Your task to perform on an android device: change notification settings in the gmail app Image 0: 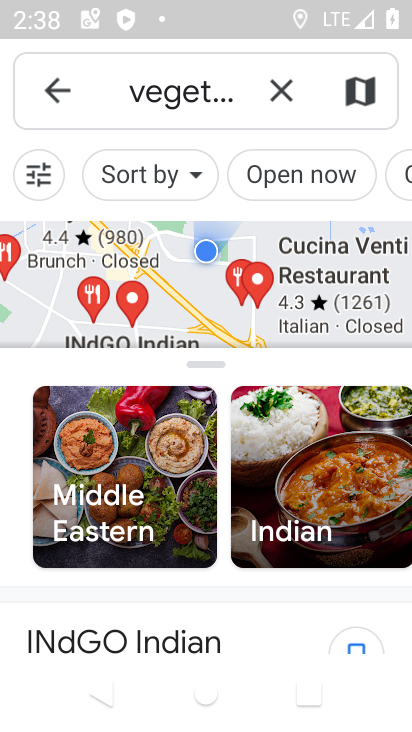
Step 0: press home button
Your task to perform on an android device: change notification settings in the gmail app Image 1: 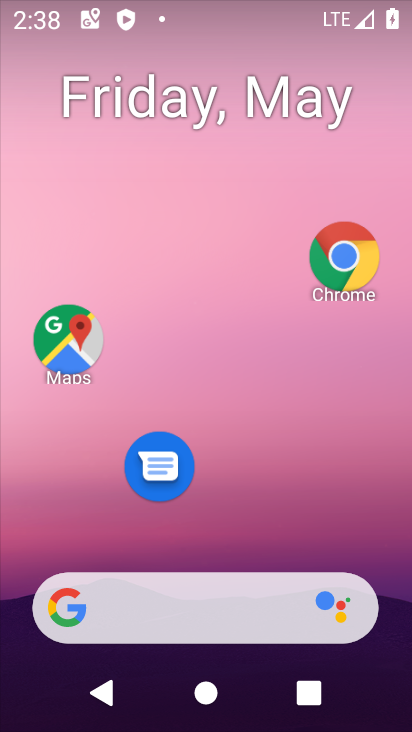
Step 1: drag from (269, 493) to (299, 2)
Your task to perform on an android device: change notification settings in the gmail app Image 2: 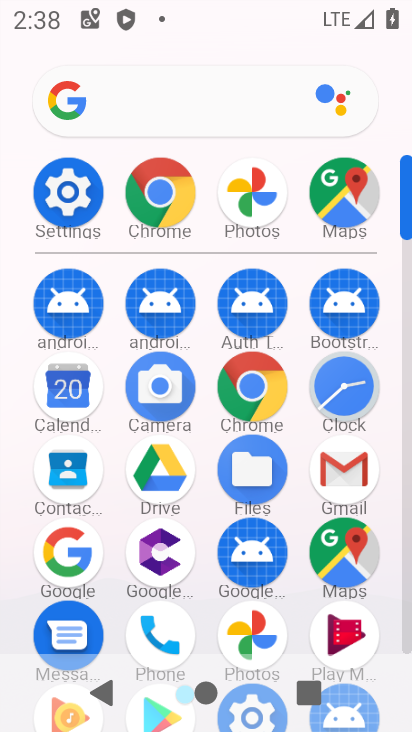
Step 2: click (360, 469)
Your task to perform on an android device: change notification settings in the gmail app Image 3: 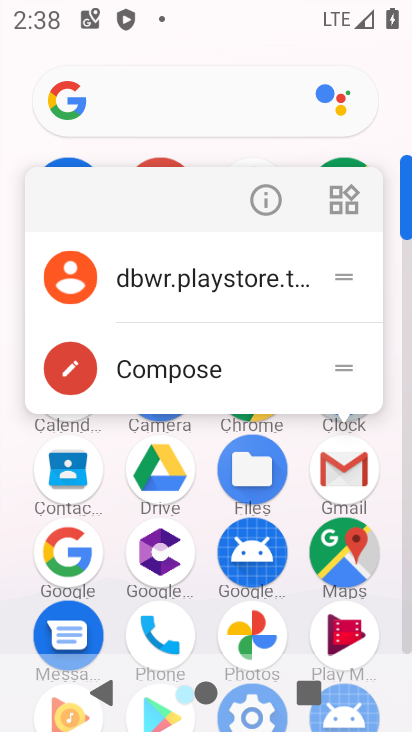
Step 3: click (265, 201)
Your task to perform on an android device: change notification settings in the gmail app Image 4: 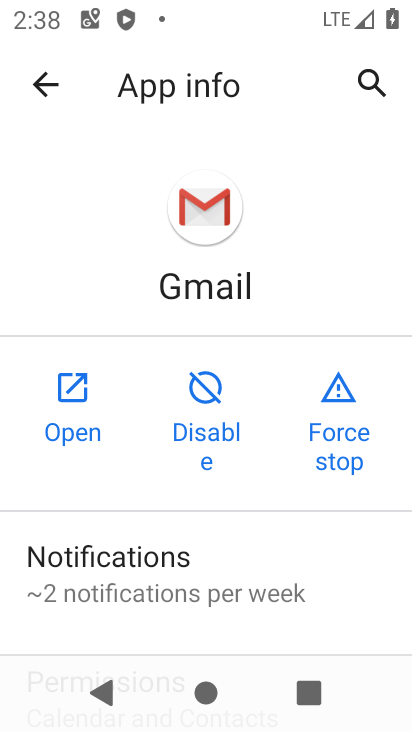
Step 4: click (161, 567)
Your task to perform on an android device: change notification settings in the gmail app Image 5: 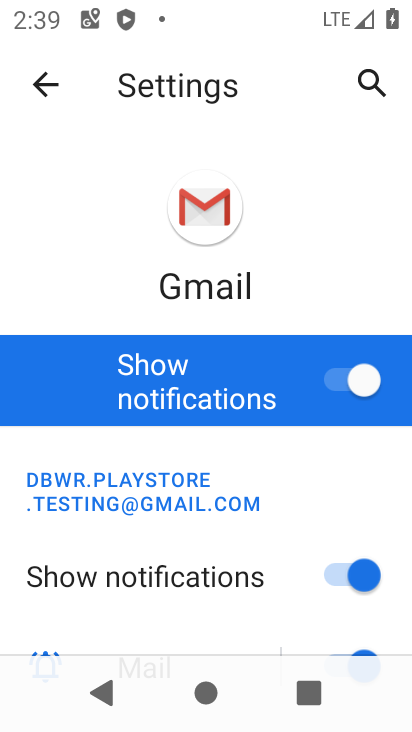
Step 5: click (358, 377)
Your task to perform on an android device: change notification settings in the gmail app Image 6: 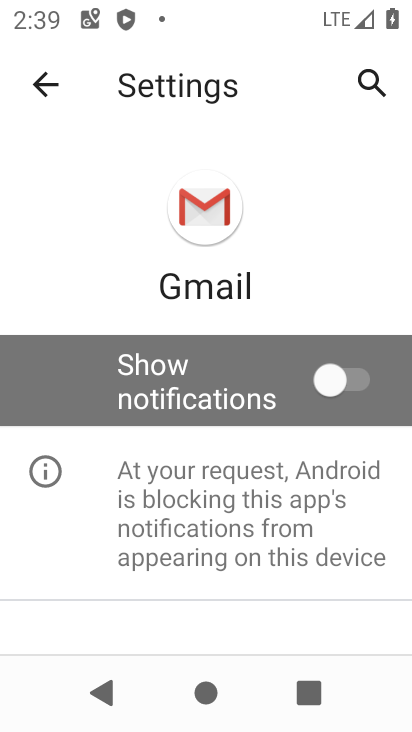
Step 6: task complete